Your task to perform on an android device: set default search engine in the chrome app Image 0: 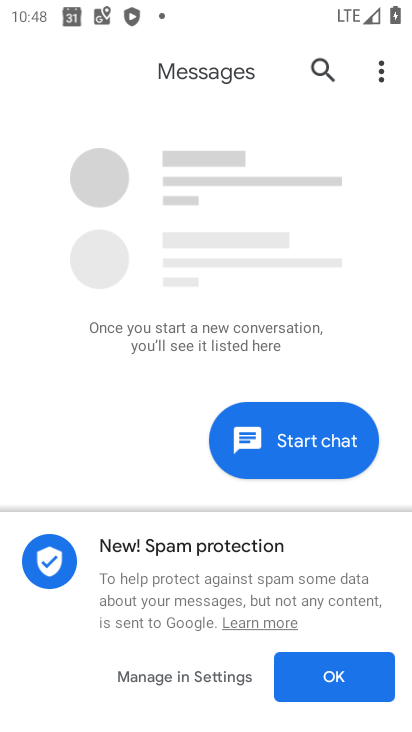
Step 0: press home button
Your task to perform on an android device: set default search engine in the chrome app Image 1: 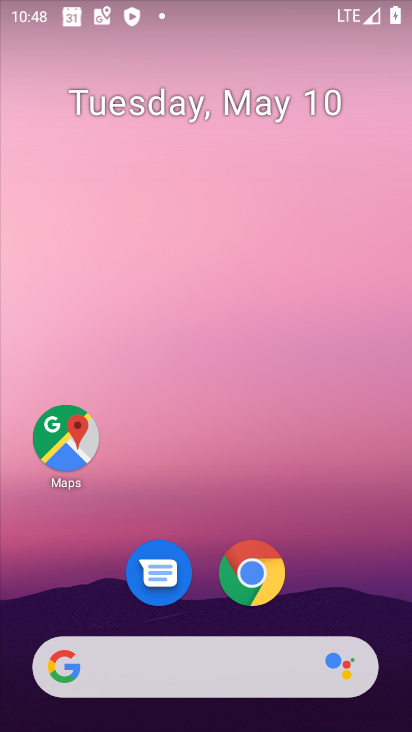
Step 1: click (253, 577)
Your task to perform on an android device: set default search engine in the chrome app Image 2: 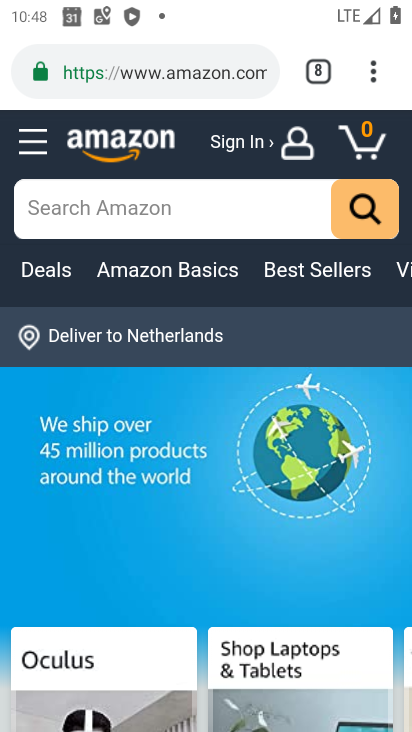
Step 2: click (373, 67)
Your task to perform on an android device: set default search engine in the chrome app Image 3: 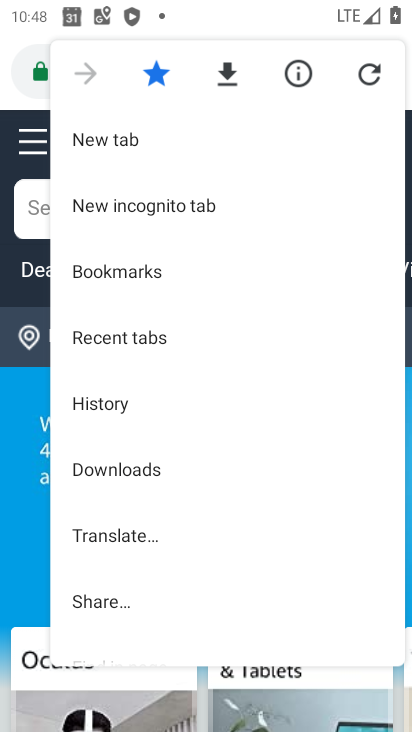
Step 3: drag from (179, 544) to (122, 278)
Your task to perform on an android device: set default search engine in the chrome app Image 4: 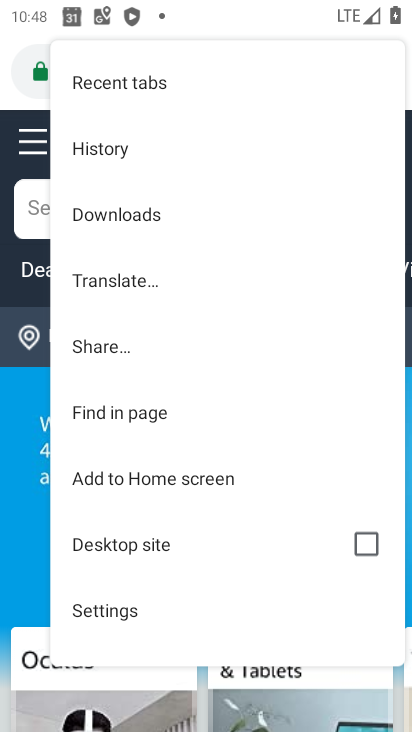
Step 4: click (98, 609)
Your task to perform on an android device: set default search engine in the chrome app Image 5: 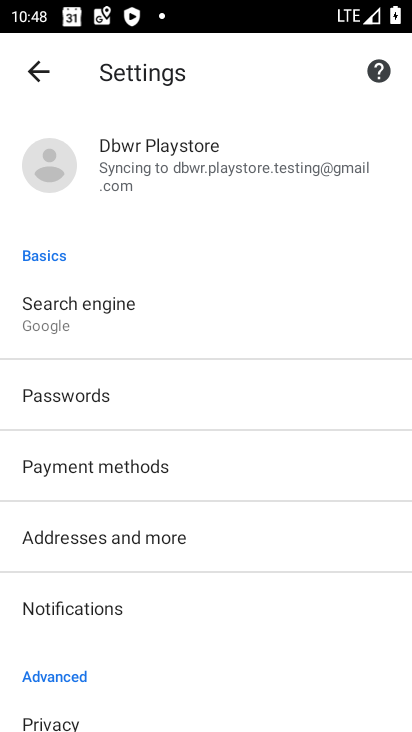
Step 5: click (103, 303)
Your task to perform on an android device: set default search engine in the chrome app Image 6: 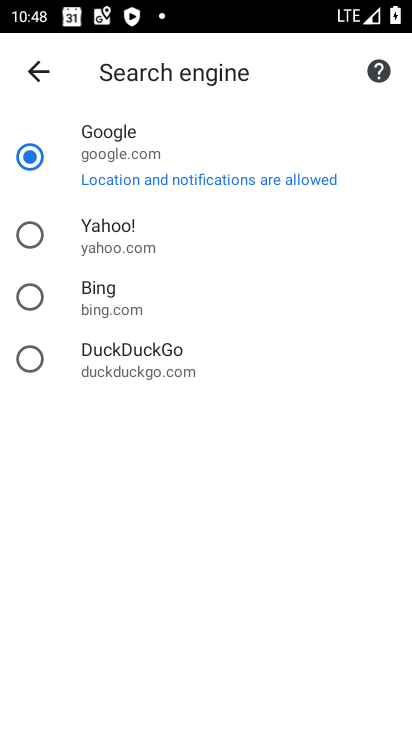
Step 6: click (32, 227)
Your task to perform on an android device: set default search engine in the chrome app Image 7: 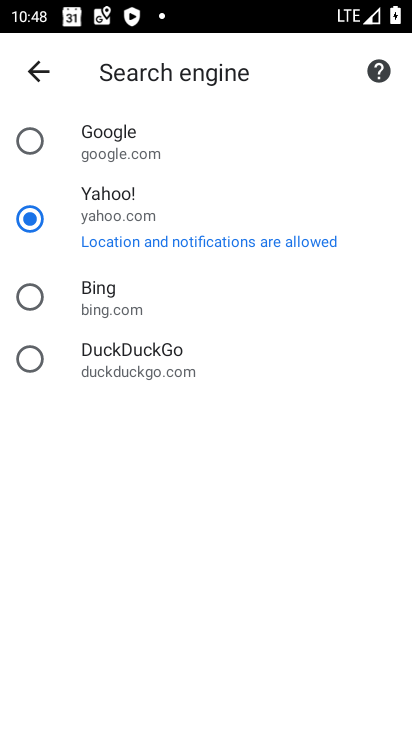
Step 7: task complete